Your task to perform on an android device: Open Yahoo.com Image 0: 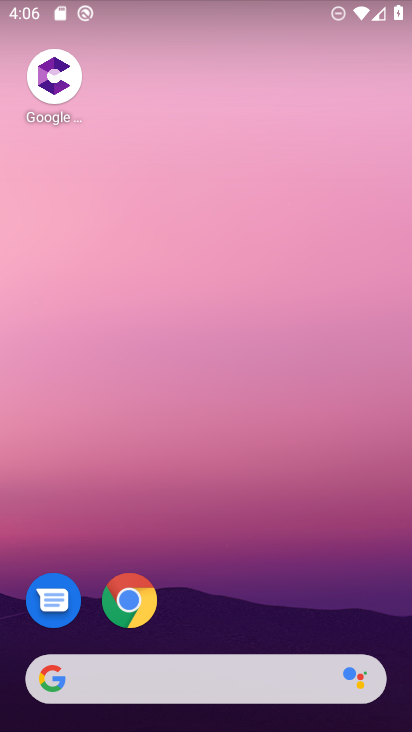
Step 0: click (125, 594)
Your task to perform on an android device: Open Yahoo.com Image 1: 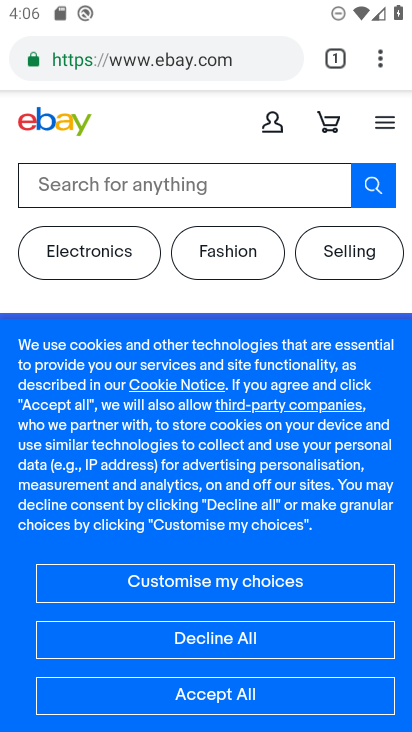
Step 1: click (181, 57)
Your task to perform on an android device: Open Yahoo.com Image 2: 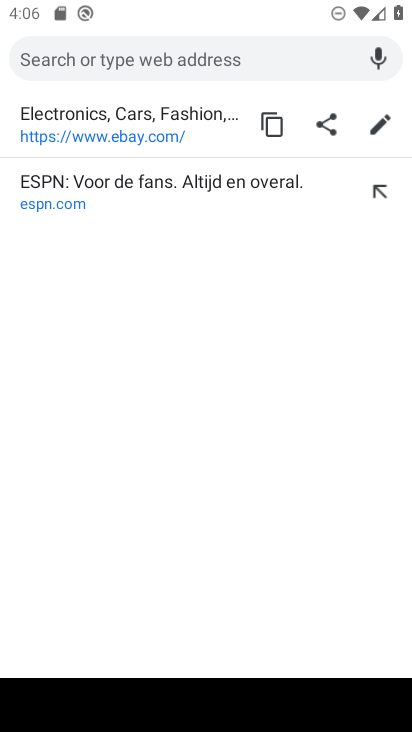
Step 2: type "yahoo.com"
Your task to perform on an android device: Open Yahoo.com Image 3: 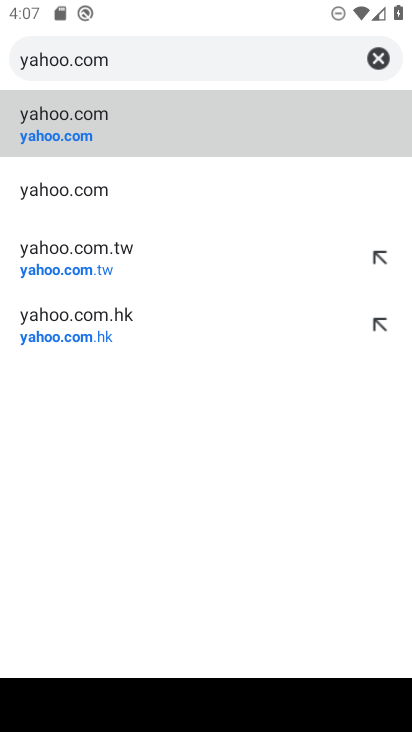
Step 3: click (39, 141)
Your task to perform on an android device: Open Yahoo.com Image 4: 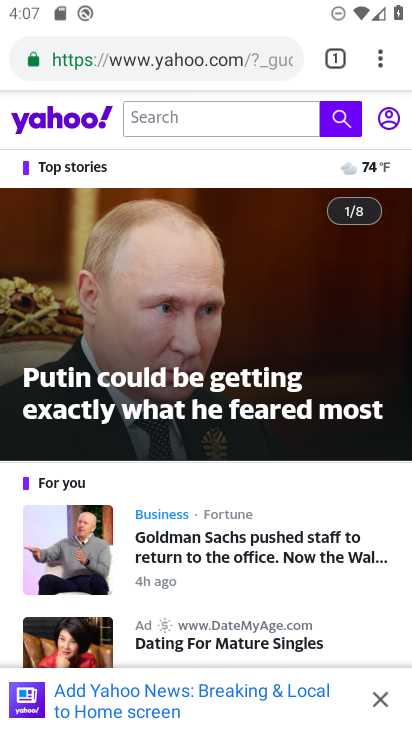
Step 4: task complete